Your task to perform on an android device: install app "The Home Depot" Image 0: 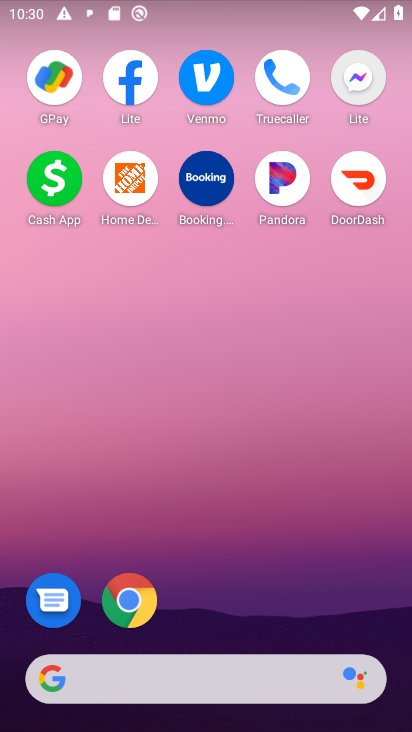
Step 0: drag from (208, 581) to (257, 39)
Your task to perform on an android device: install app "The Home Depot" Image 1: 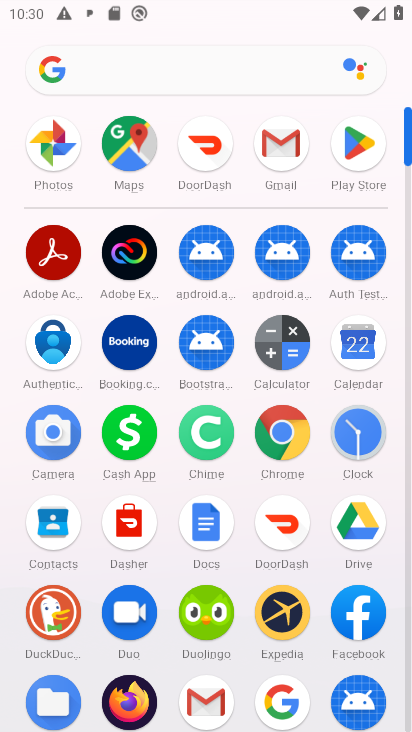
Step 1: click (348, 145)
Your task to perform on an android device: install app "The Home Depot" Image 2: 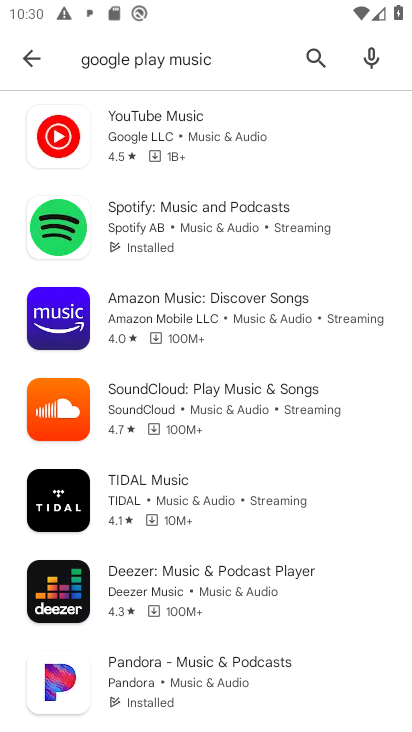
Step 2: click (311, 53)
Your task to perform on an android device: install app "The Home Depot" Image 3: 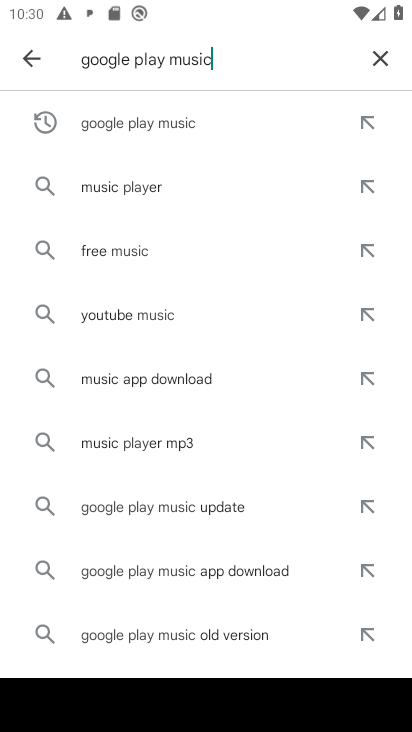
Step 3: click (369, 55)
Your task to perform on an android device: install app "The Home Depot" Image 4: 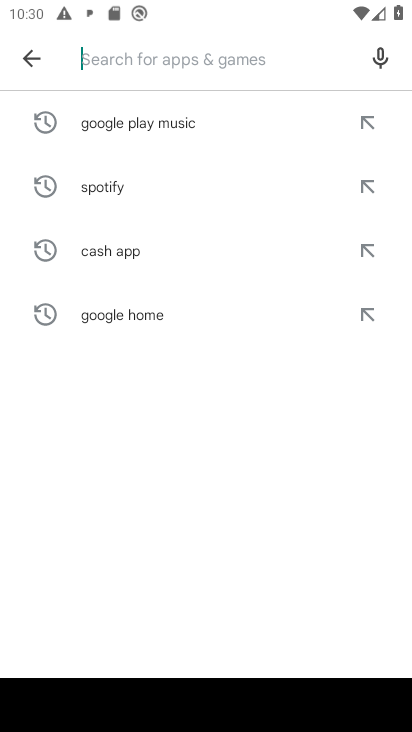
Step 4: type "The Home Depot"
Your task to perform on an android device: install app "The Home Depot" Image 5: 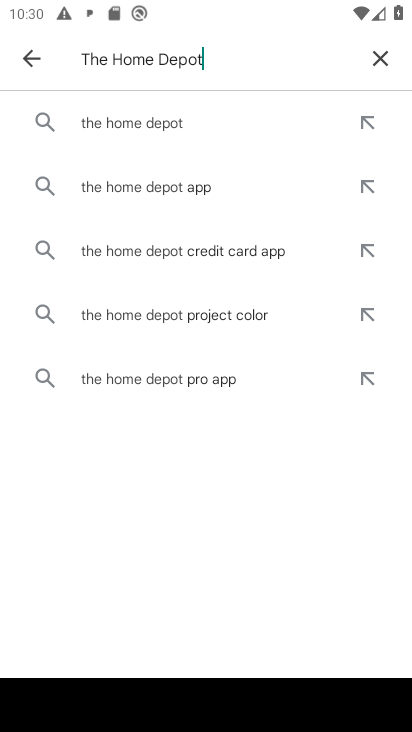
Step 5: type ""
Your task to perform on an android device: install app "The Home Depot" Image 6: 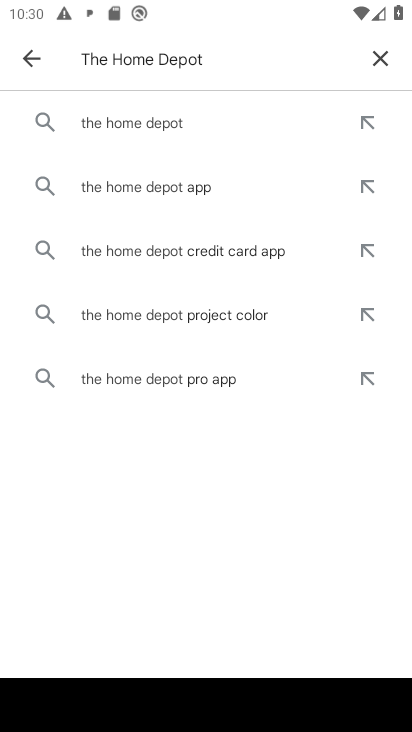
Step 6: click (190, 123)
Your task to perform on an android device: install app "The Home Depot" Image 7: 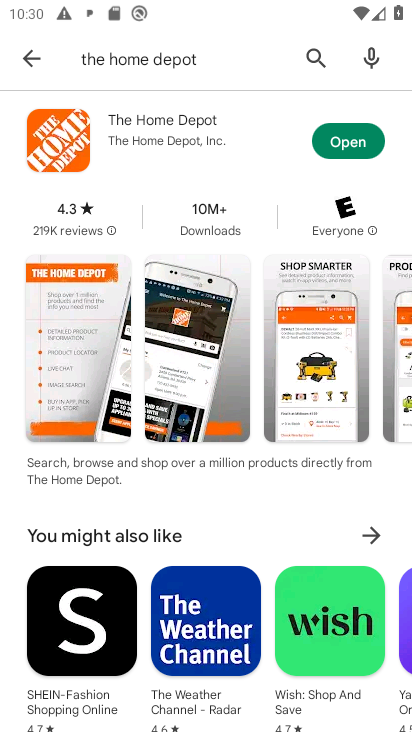
Step 7: task complete